Your task to perform on an android device: add a contact in the contacts app Image 0: 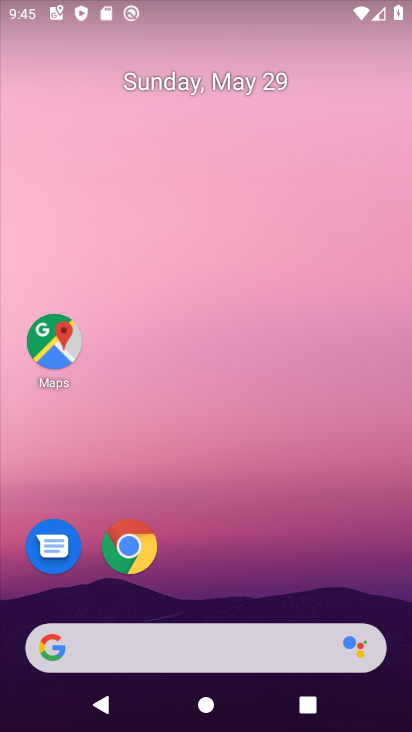
Step 0: drag from (286, 595) to (255, 230)
Your task to perform on an android device: add a contact in the contacts app Image 1: 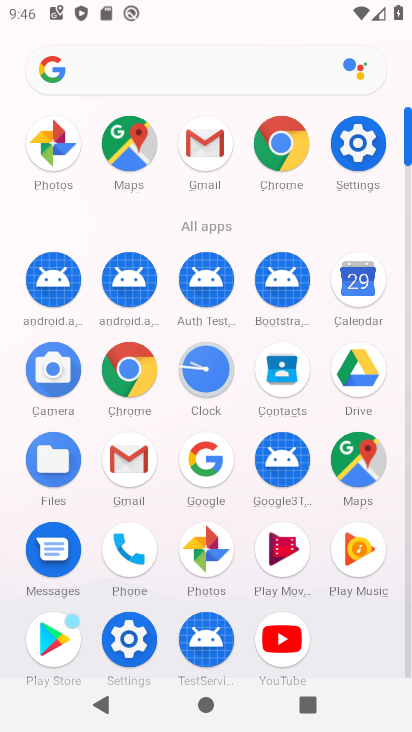
Step 1: click (295, 363)
Your task to perform on an android device: add a contact in the contacts app Image 2: 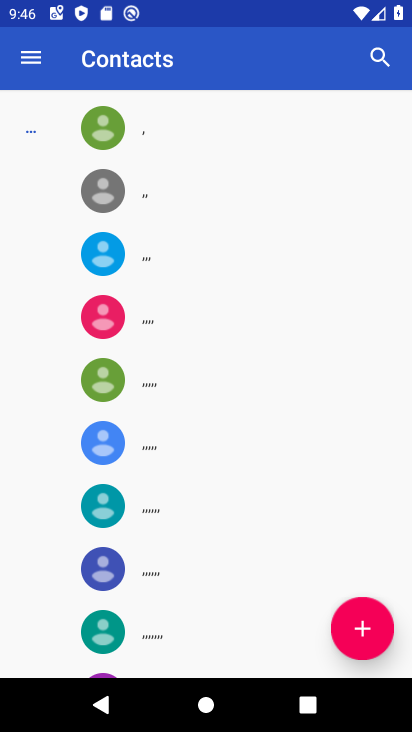
Step 2: click (354, 641)
Your task to perform on an android device: add a contact in the contacts app Image 3: 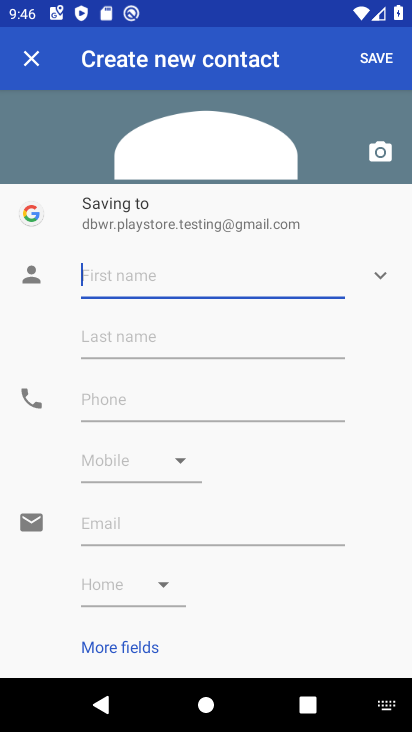
Step 3: type "9ki"
Your task to perform on an android device: add a contact in the contacts app Image 4: 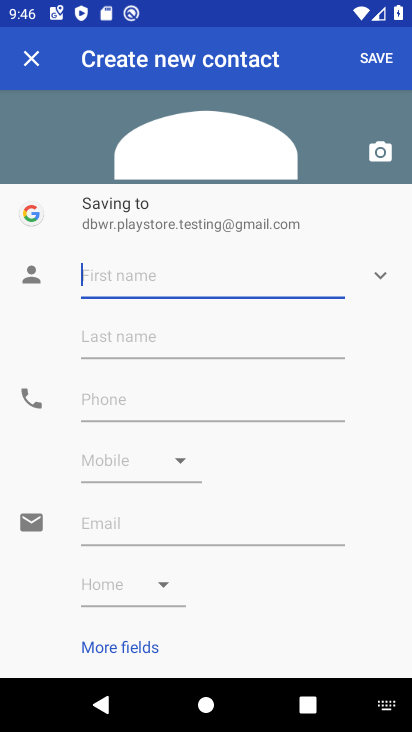
Step 4: click (128, 387)
Your task to perform on an android device: add a contact in the contacts app Image 5: 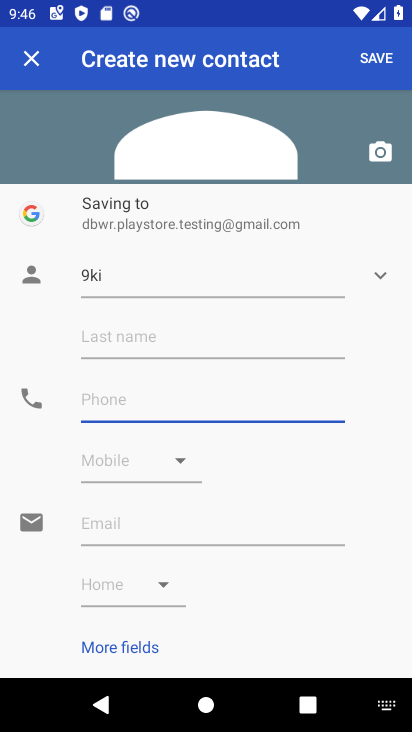
Step 5: type "9977997788"
Your task to perform on an android device: add a contact in the contacts app Image 6: 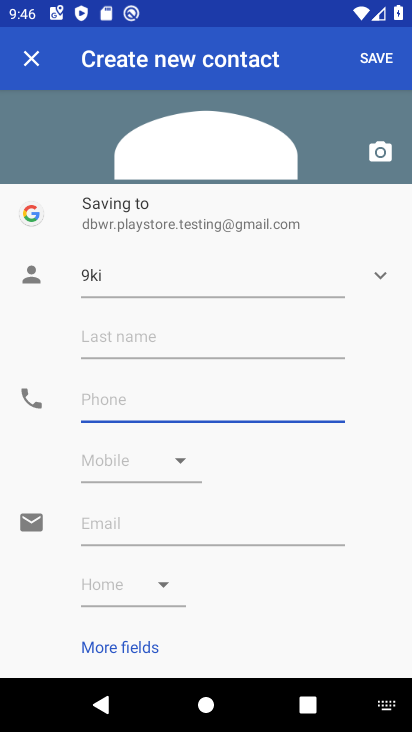
Step 6: click (393, 61)
Your task to perform on an android device: add a contact in the contacts app Image 7: 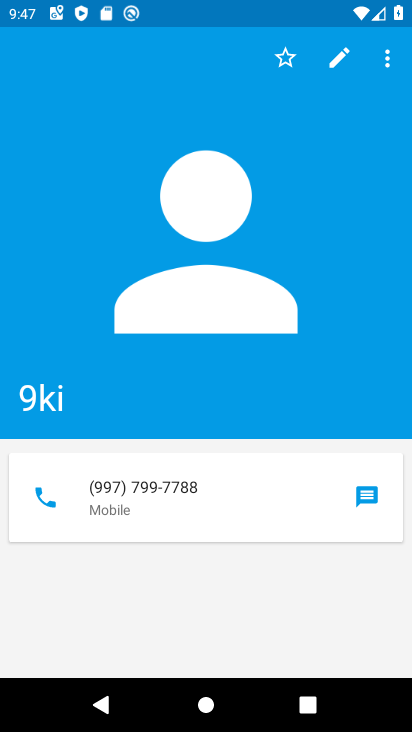
Step 7: task complete